Your task to perform on an android device: show emergency info Image 0: 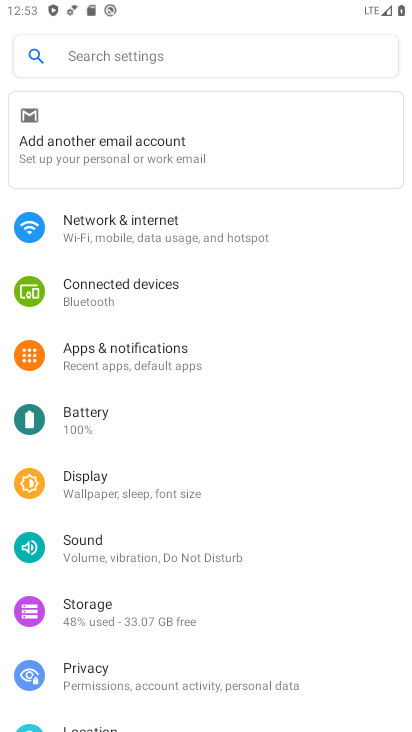
Step 0: drag from (284, 574) to (189, 25)
Your task to perform on an android device: show emergency info Image 1: 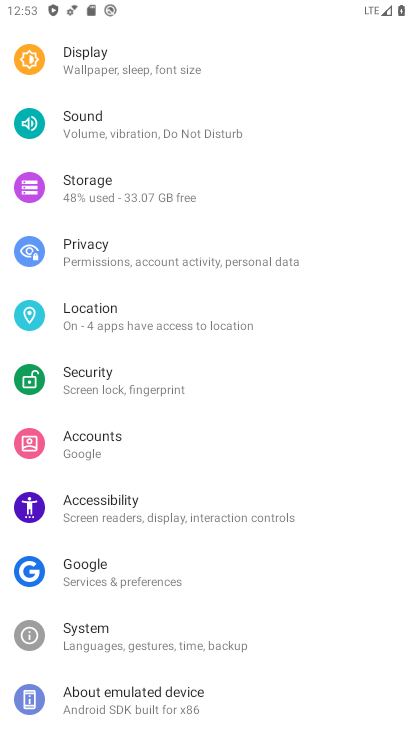
Step 1: click (117, 681)
Your task to perform on an android device: show emergency info Image 2: 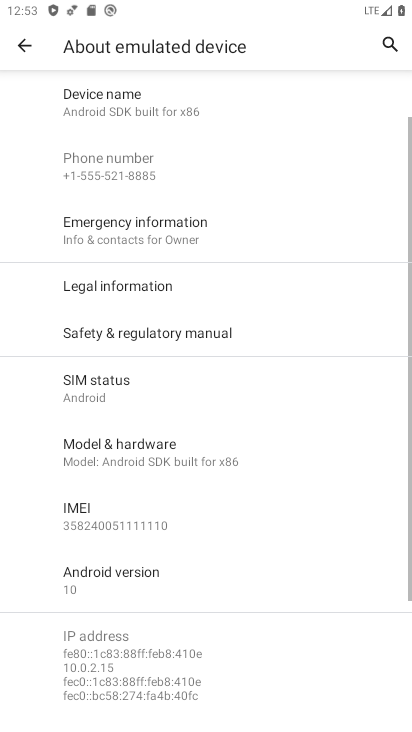
Step 2: click (109, 230)
Your task to perform on an android device: show emergency info Image 3: 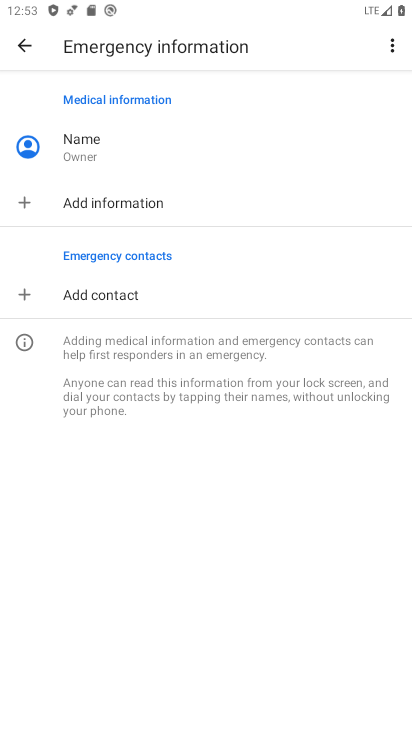
Step 3: task complete